Your task to perform on an android device: Check the weather Image 0: 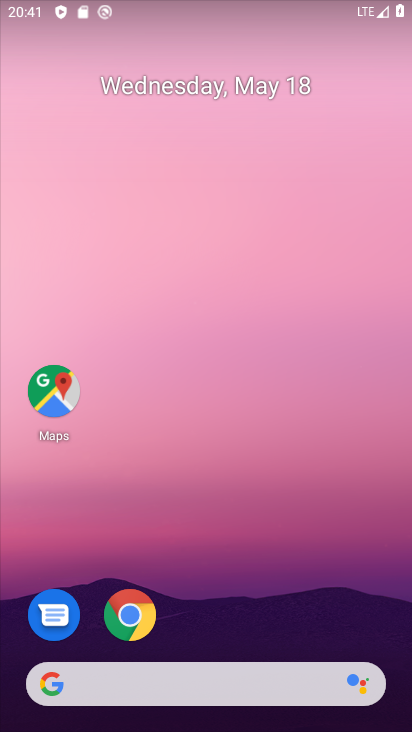
Step 0: drag from (13, 282) to (388, 231)
Your task to perform on an android device: Check the weather Image 1: 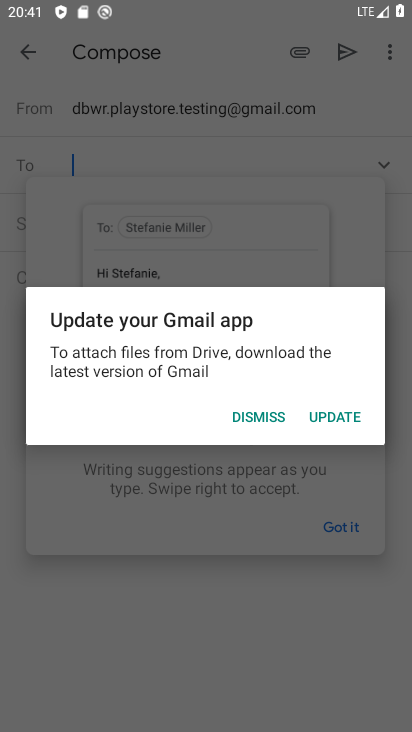
Step 1: press home button
Your task to perform on an android device: Check the weather Image 2: 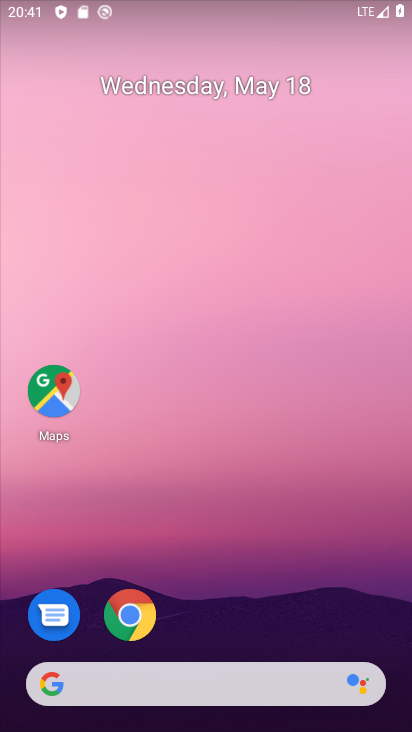
Step 2: drag from (20, 279) to (364, 255)
Your task to perform on an android device: Check the weather Image 3: 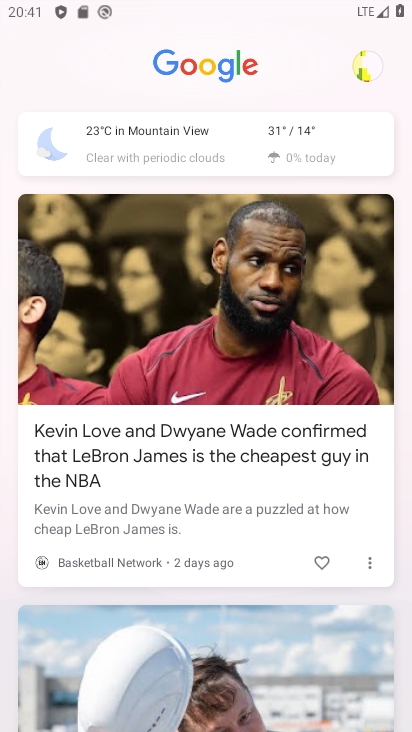
Step 3: click (67, 135)
Your task to perform on an android device: Check the weather Image 4: 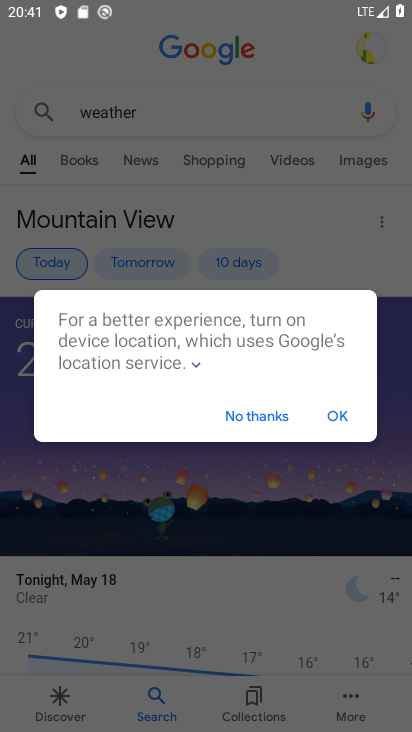
Step 4: click (329, 418)
Your task to perform on an android device: Check the weather Image 5: 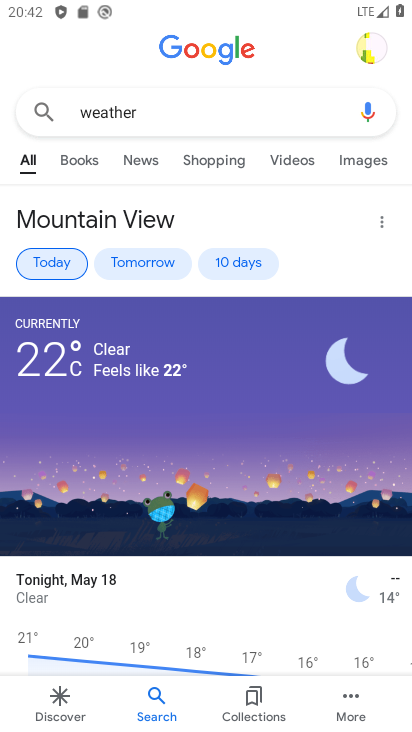
Step 5: task complete